Your task to perform on an android device: Open Yahoo.com Image 0: 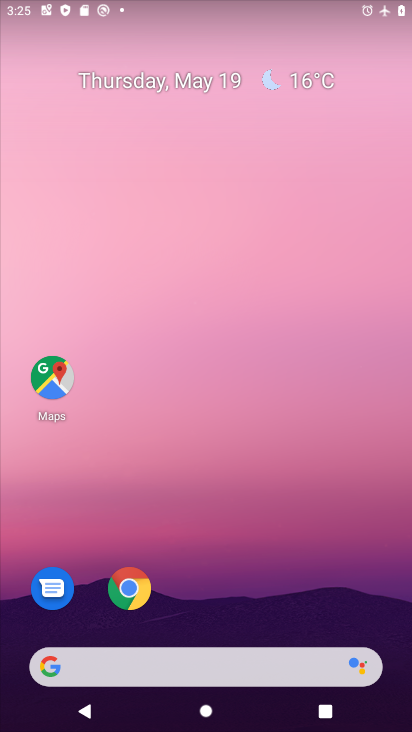
Step 0: click (130, 589)
Your task to perform on an android device: Open Yahoo.com Image 1: 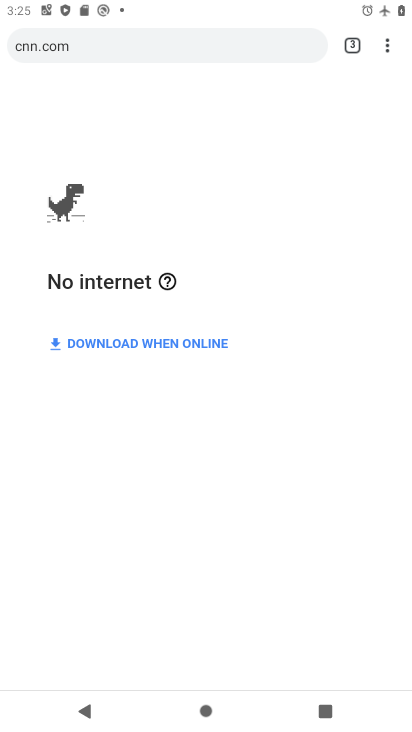
Step 1: click (221, 34)
Your task to perform on an android device: Open Yahoo.com Image 2: 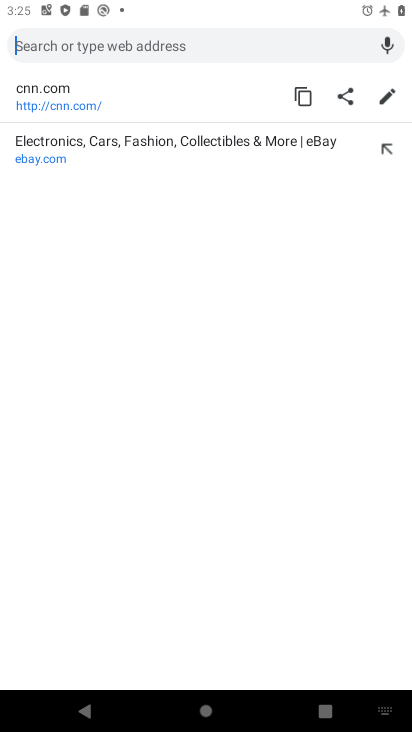
Step 2: type "yahoo.com"
Your task to perform on an android device: Open Yahoo.com Image 3: 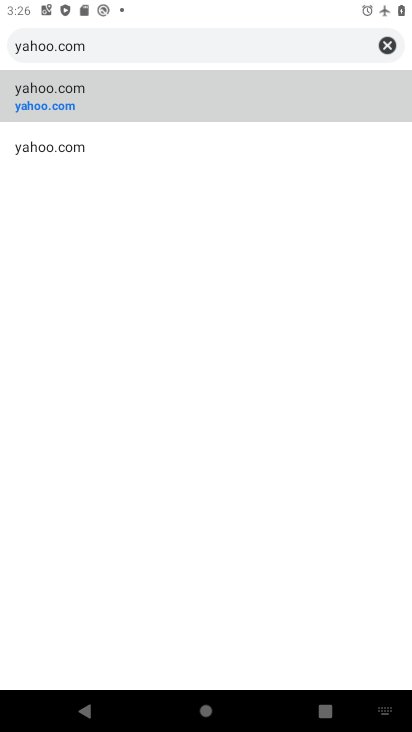
Step 3: click (37, 102)
Your task to perform on an android device: Open Yahoo.com Image 4: 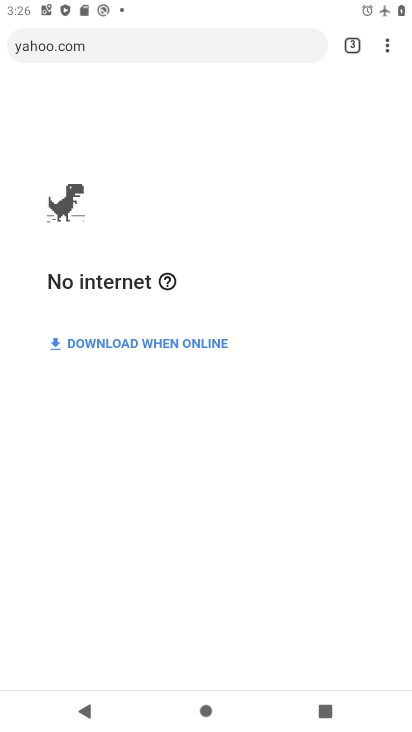
Step 4: task complete